Your task to perform on an android device: add a label to a message in the gmail app Image 0: 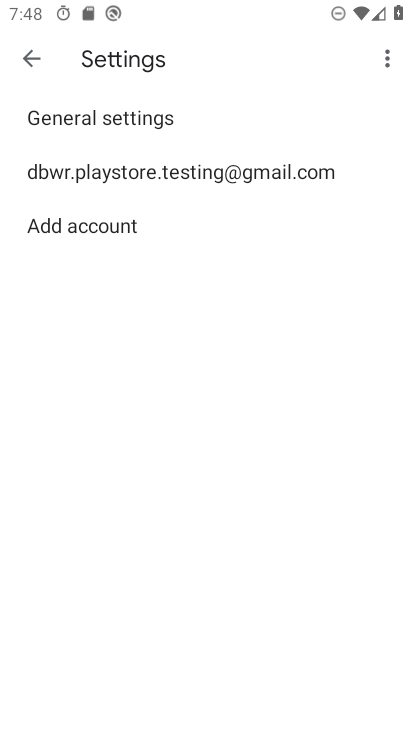
Step 0: press back button
Your task to perform on an android device: add a label to a message in the gmail app Image 1: 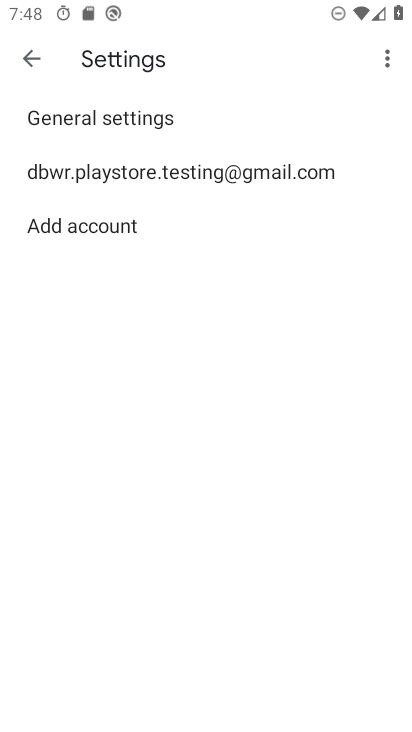
Step 1: press back button
Your task to perform on an android device: add a label to a message in the gmail app Image 2: 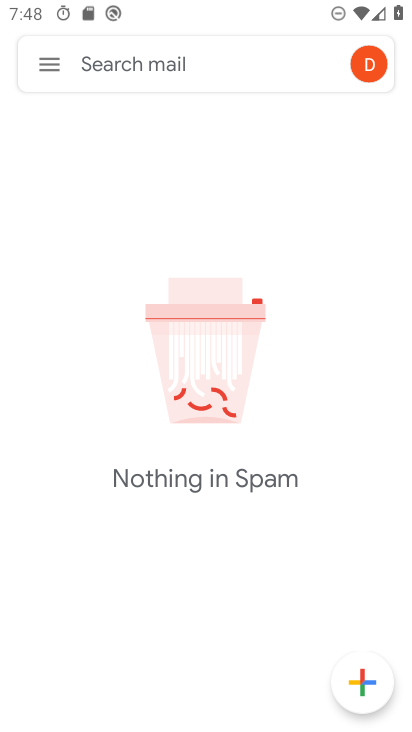
Step 2: click (40, 56)
Your task to perform on an android device: add a label to a message in the gmail app Image 3: 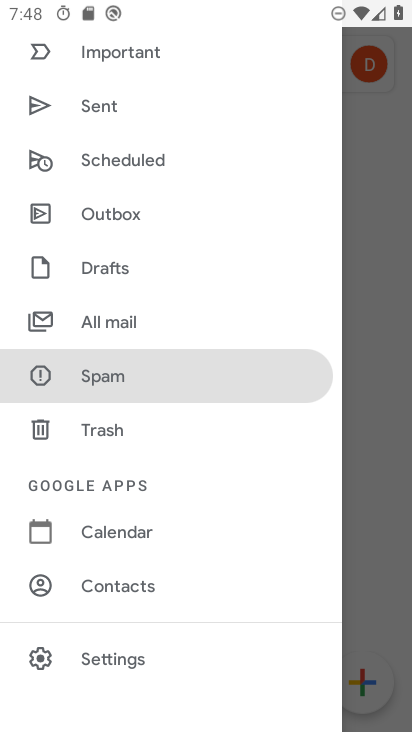
Step 3: click (118, 328)
Your task to perform on an android device: add a label to a message in the gmail app Image 4: 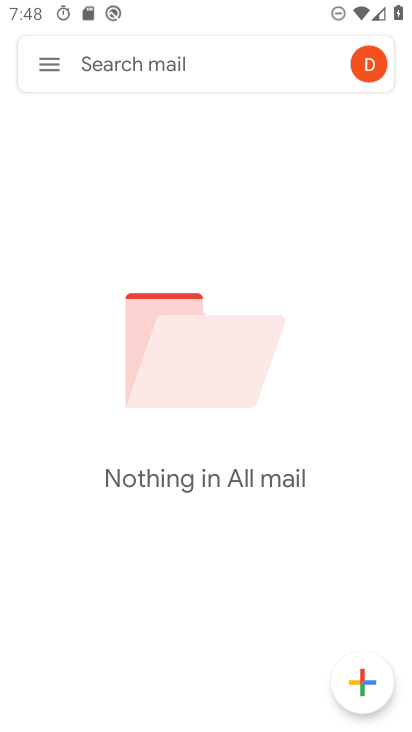
Step 4: task complete